Your task to perform on an android device: create a new album in the google photos Image 0: 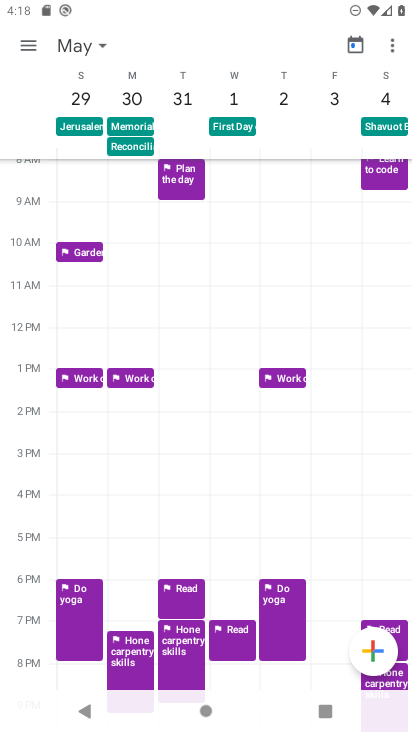
Step 0: press home button
Your task to perform on an android device: create a new album in the google photos Image 1: 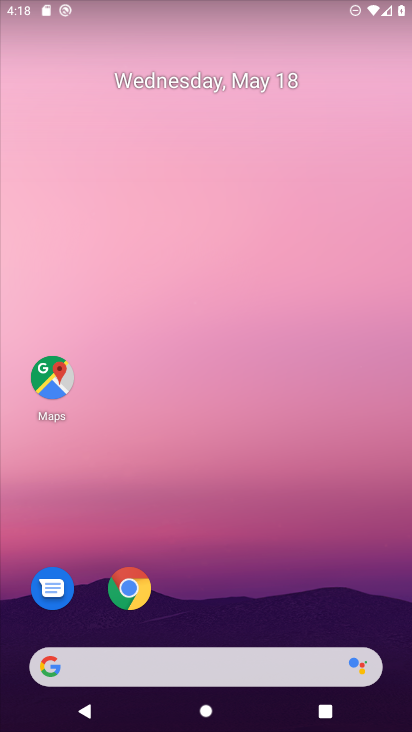
Step 1: drag from (283, 584) to (278, 1)
Your task to perform on an android device: create a new album in the google photos Image 2: 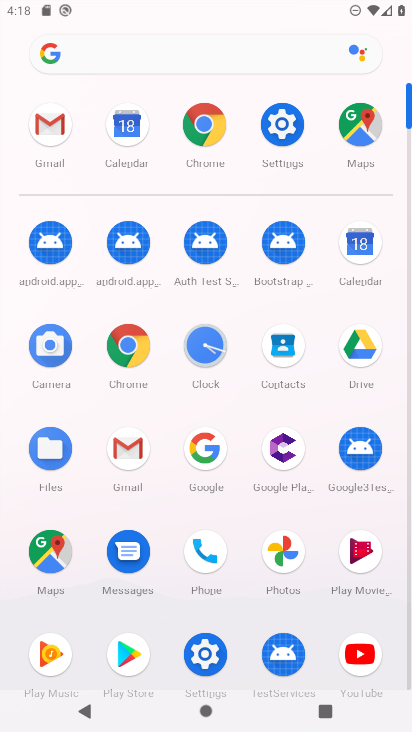
Step 2: click (288, 556)
Your task to perform on an android device: create a new album in the google photos Image 3: 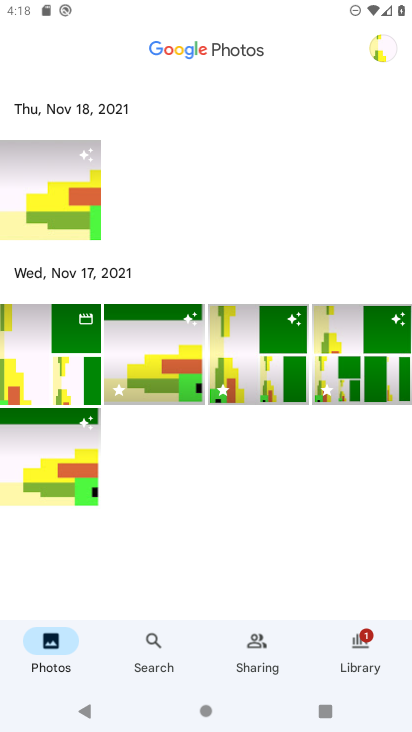
Step 3: click (353, 646)
Your task to perform on an android device: create a new album in the google photos Image 4: 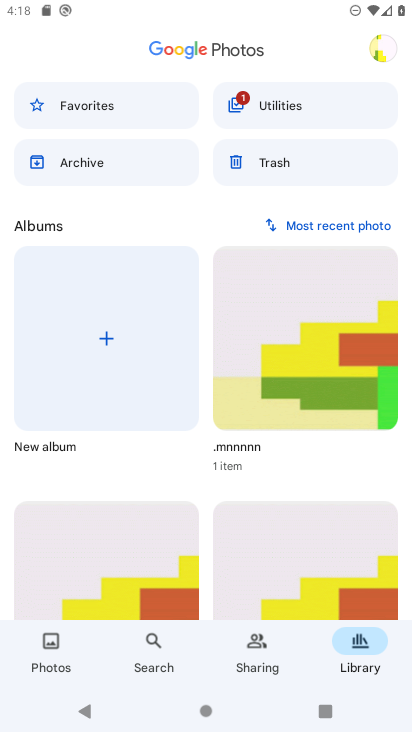
Step 4: click (145, 339)
Your task to perform on an android device: create a new album in the google photos Image 5: 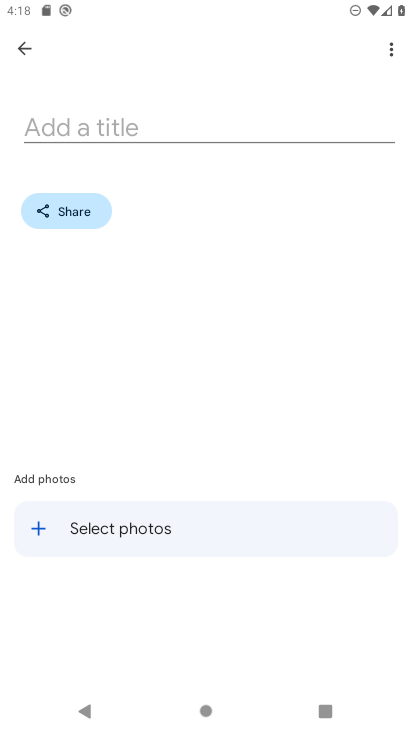
Step 5: click (94, 130)
Your task to perform on an android device: create a new album in the google photos Image 6: 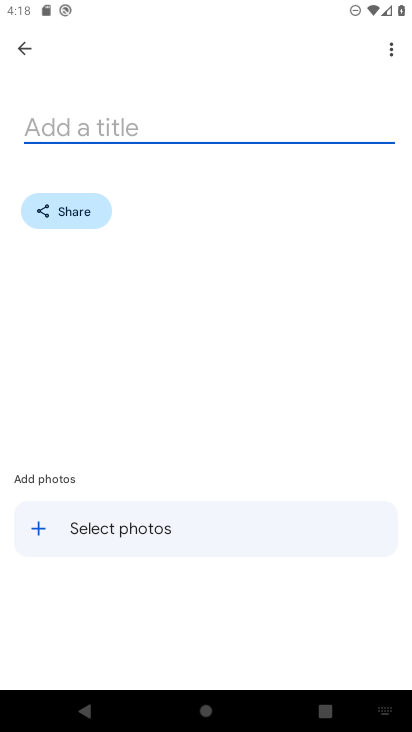
Step 6: type "tatti"
Your task to perform on an android device: create a new album in the google photos Image 7: 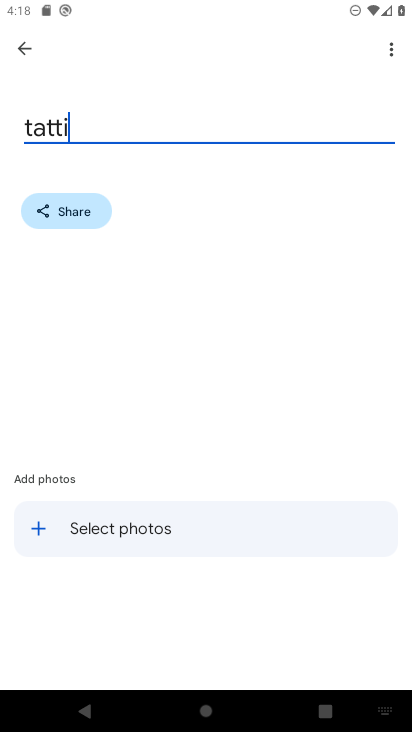
Step 7: click (62, 513)
Your task to perform on an android device: create a new album in the google photos Image 8: 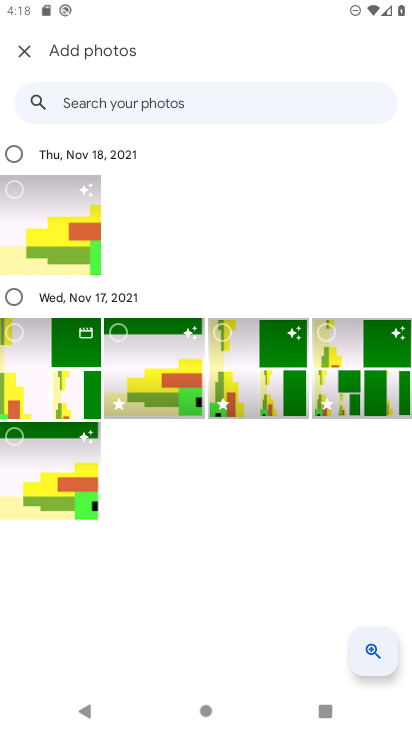
Step 8: click (3, 143)
Your task to perform on an android device: create a new album in the google photos Image 9: 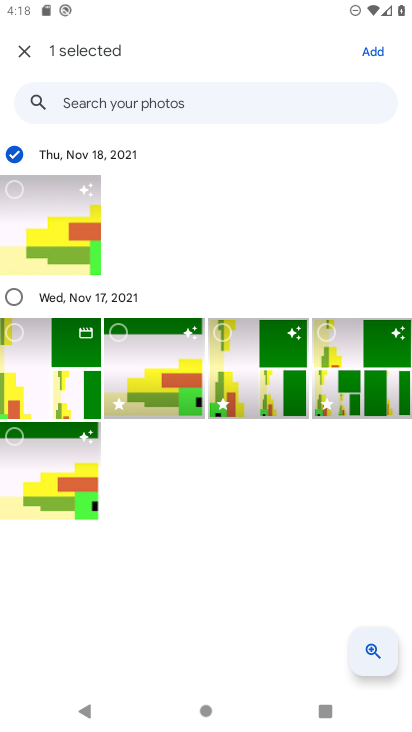
Step 9: click (21, 288)
Your task to perform on an android device: create a new album in the google photos Image 10: 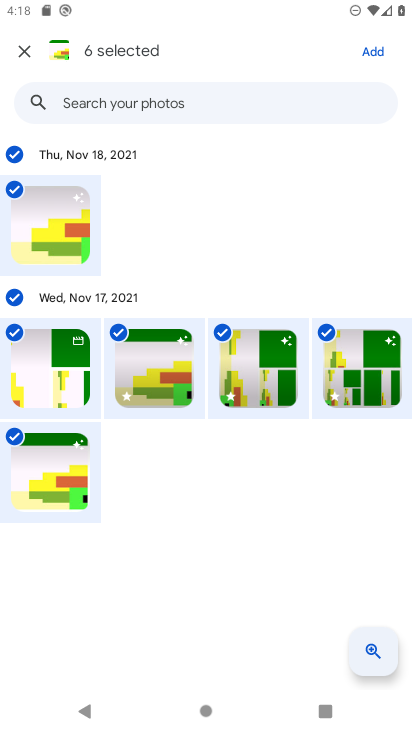
Step 10: click (382, 37)
Your task to perform on an android device: create a new album in the google photos Image 11: 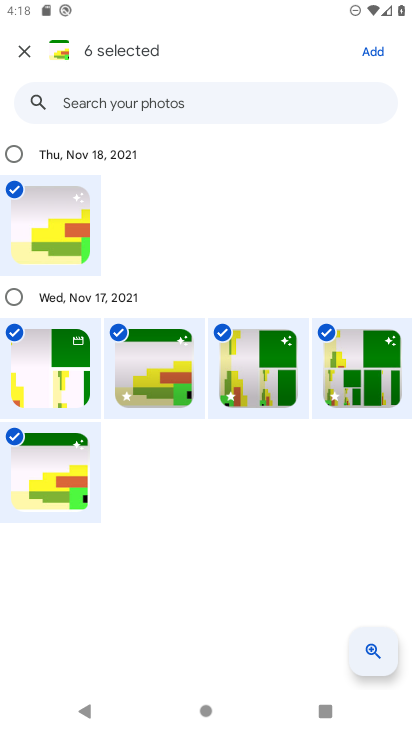
Step 11: task complete